Your task to perform on an android device: Open Youtube and go to "Your channel" Image 0: 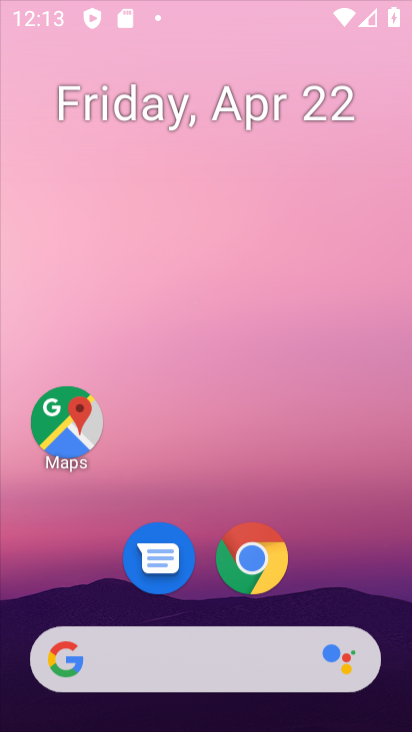
Step 0: drag from (347, 223) to (346, 71)
Your task to perform on an android device: Open Youtube and go to "Your channel" Image 1: 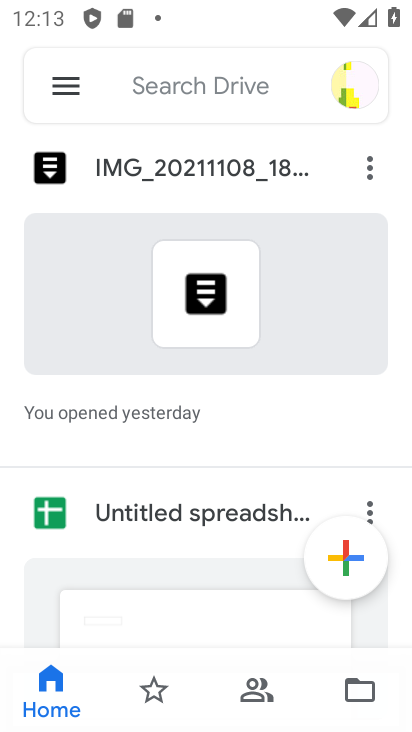
Step 1: press home button
Your task to perform on an android device: Open Youtube and go to "Your channel" Image 2: 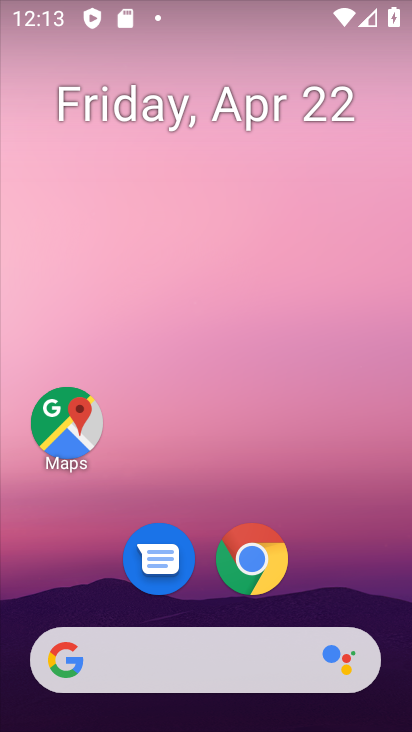
Step 2: drag from (352, 588) to (358, 128)
Your task to perform on an android device: Open Youtube and go to "Your channel" Image 3: 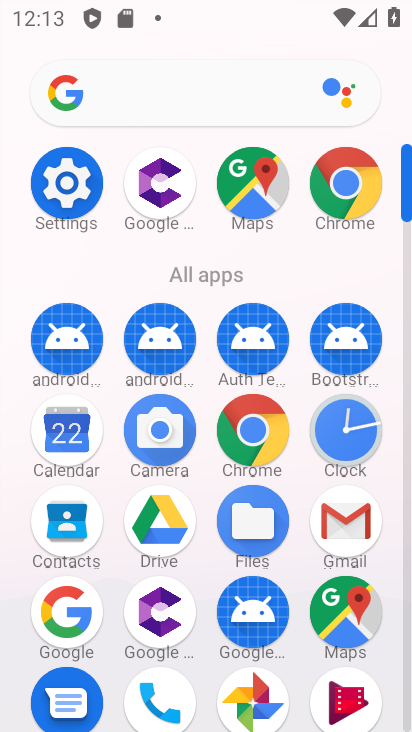
Step 3: drag from (396, 509) to (397, 221)
Your task to perform on an android device: Open Youtube and go to "Your channel" Image 4: 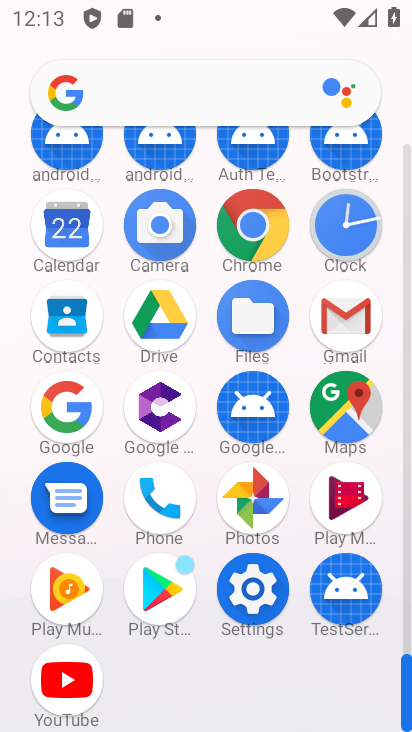
Step 4: click (69, 680)
Your task to perform on an android device: Open Youtube and go to "Your channel" Image 5: 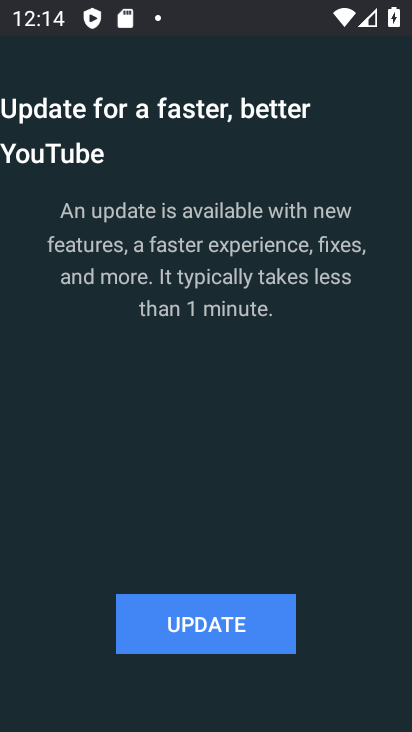
Step 5: click (249, 634)
Your task to perform on an android device: Open Youtube and go to "Your channel" Image 6: 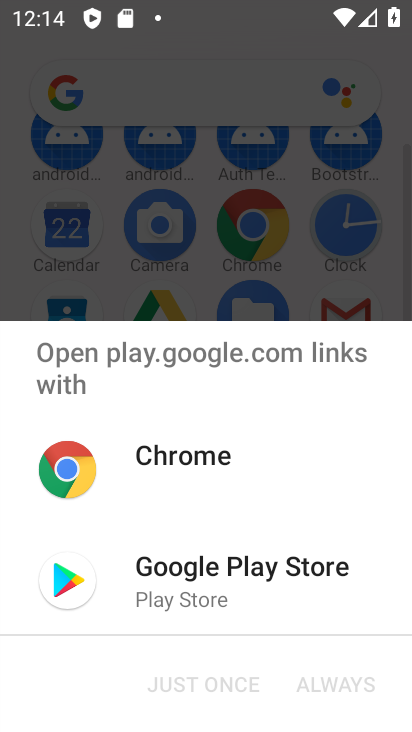
Step 6: click (249, 578)
Your task to perform on an android device: Open Youtube and go to "Your channel" Image 7: 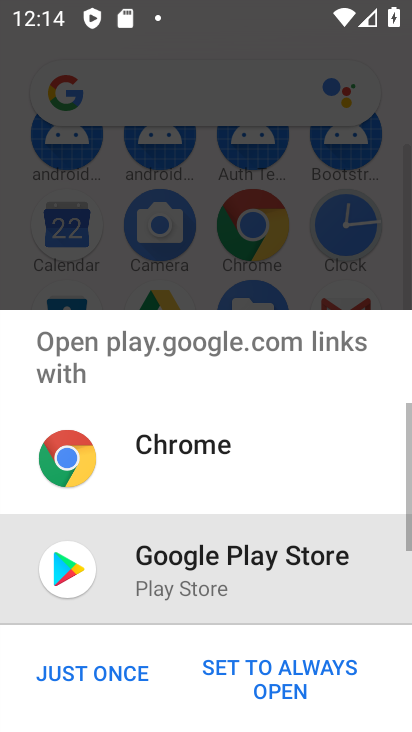
Step 7: click (126, 674)
Your task to perform on an android device: Open Youtube and go to "Your channel" Image 8: 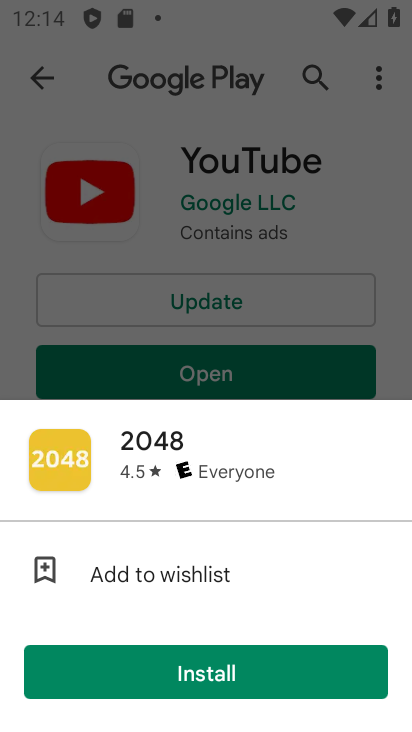
Step 8: click (35, 260)
Your task to perform on an android device: Open Youtube and go to "Your channel" Image 9: 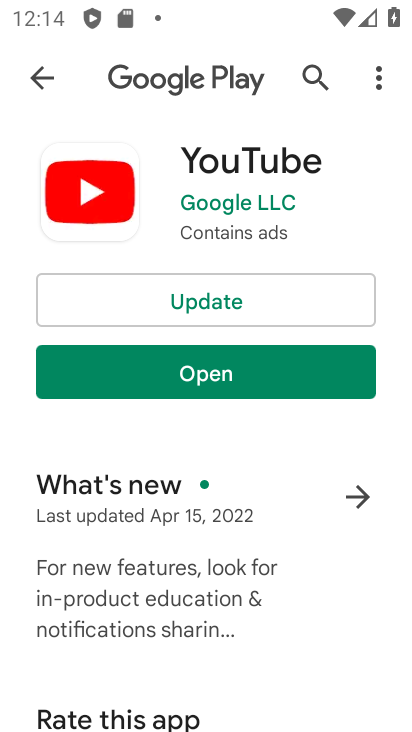
Step 9: click (173, 296)
Your task to perform on an android device: Open Youtube and go to "Your channel" Image 10: 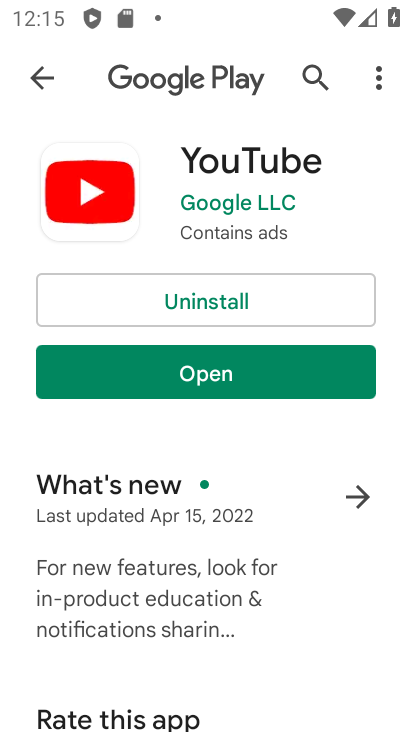
Step 10: click (318, 391)
Your task to perform on an android device: Open Youtube and go to "Your channel" Image 11: 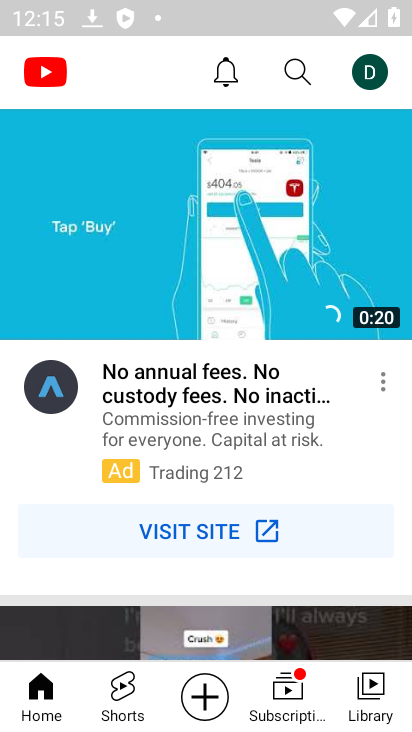
Step 11: click (373, 72)
Your task to perform on an android device: Open Youtube and go to "Your channel" Image 12: 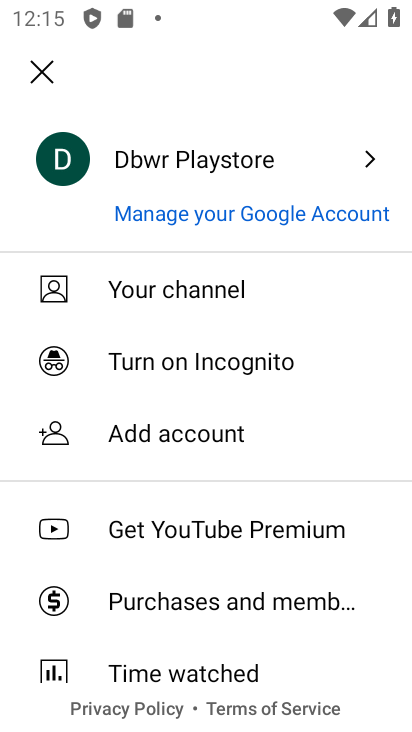
Step 12: click (245, 291)
Your task to perform on an android device: Open Youtube and go to "Your channel" Image 13: 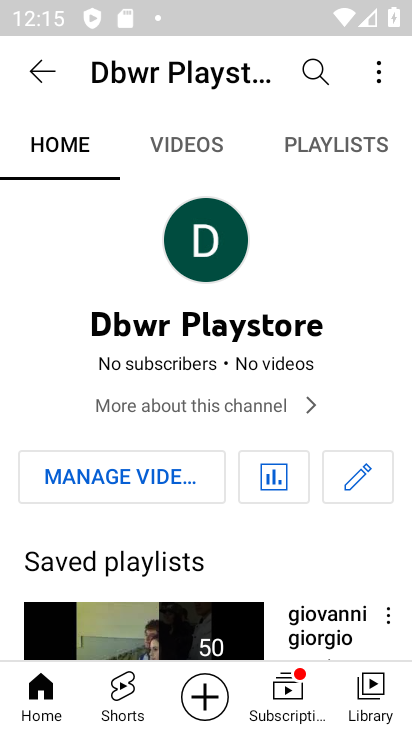
Step 13: task complete